Your task to perform on an android device: Open CNN.com Image 0: 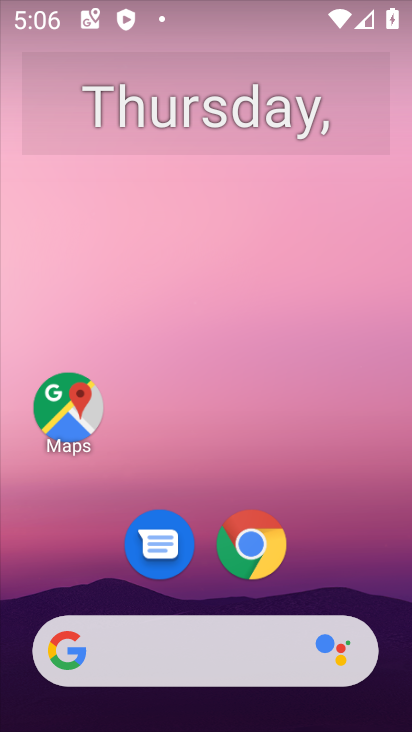
Step 0: click (253, 544)
Your task to perform on an android device: Open CNN.com Image 1: 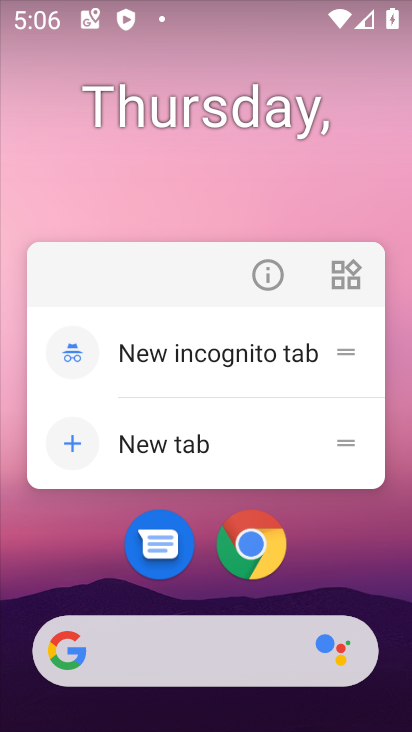
Step 1: click (253, 544)
Your task to perform on an android device: Open CNN.com Image 2: 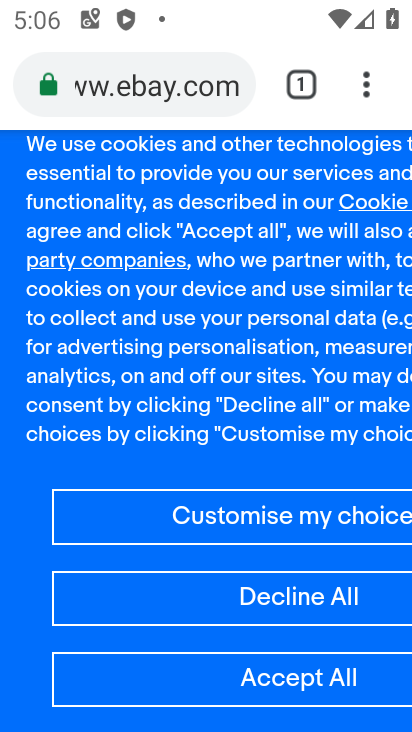
Step 2: click (167, 77)
Your task to perform on an android device: Open CNN.com Image 3: 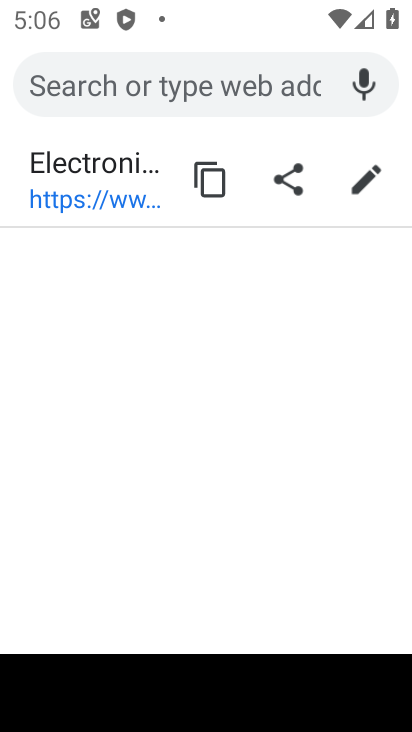
Step 3: type "cnn.com"
Your task to perform on an android device: Open CNN.com Image 4: 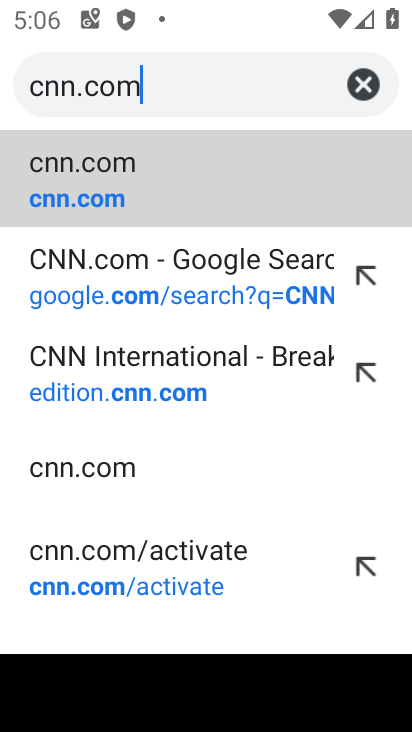
Step 4: click (88, 204)
Your task to perform on an android device: Open CNN.com Image 5: 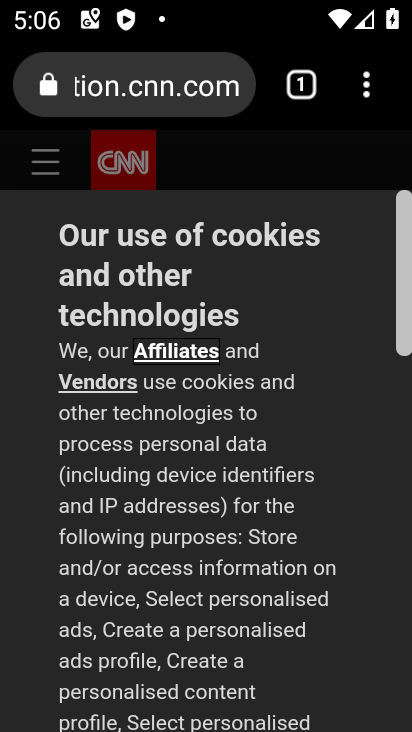
Step 5: task complete